Your task to perform on an android device: Add razer blackwidow to the cart on bestbuy.com, then select checkout. Image 0: 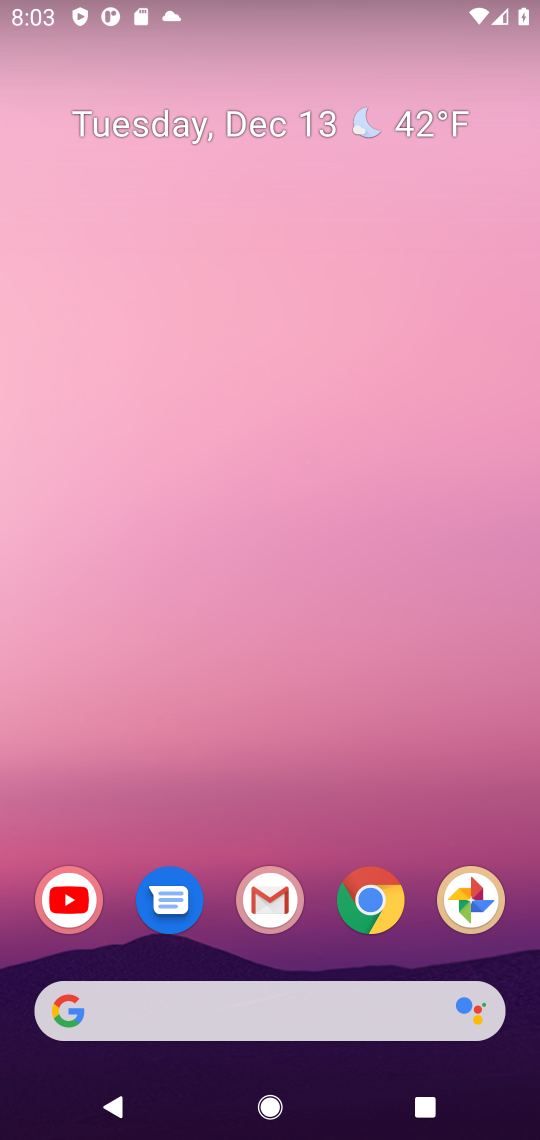
Step 0: click (370, 874)
Your task to perform on an android device: Add razer blackwidow to the cart on bestbuy.com, then select checkout. Image 1: 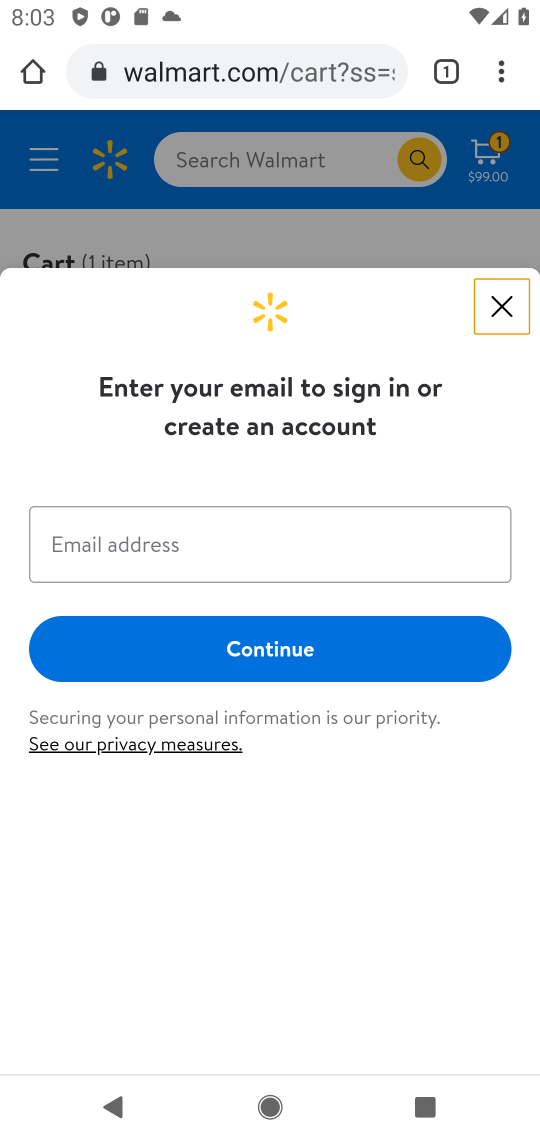
Step 1: click (501, 306)
Your task to perform on an android device: Add razer blackwidow to the cart on bestbuy.com, then select checkout. Image 2: 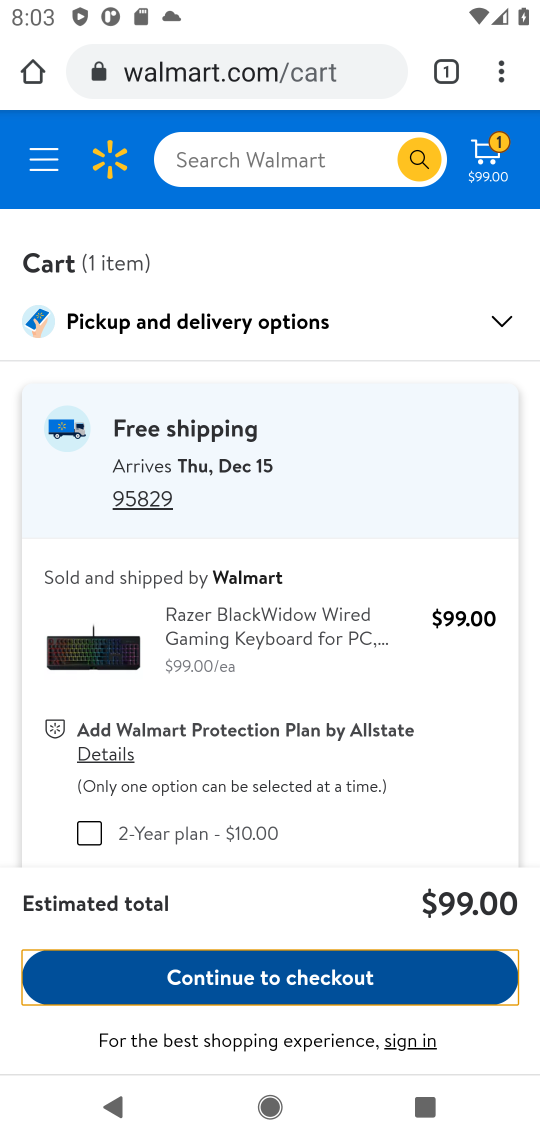
Step 2: click (293, 68)
Your task to perform on an android device: Add razer blackwidow to the cart on bestbuy.com, then select checkout. Image 3: 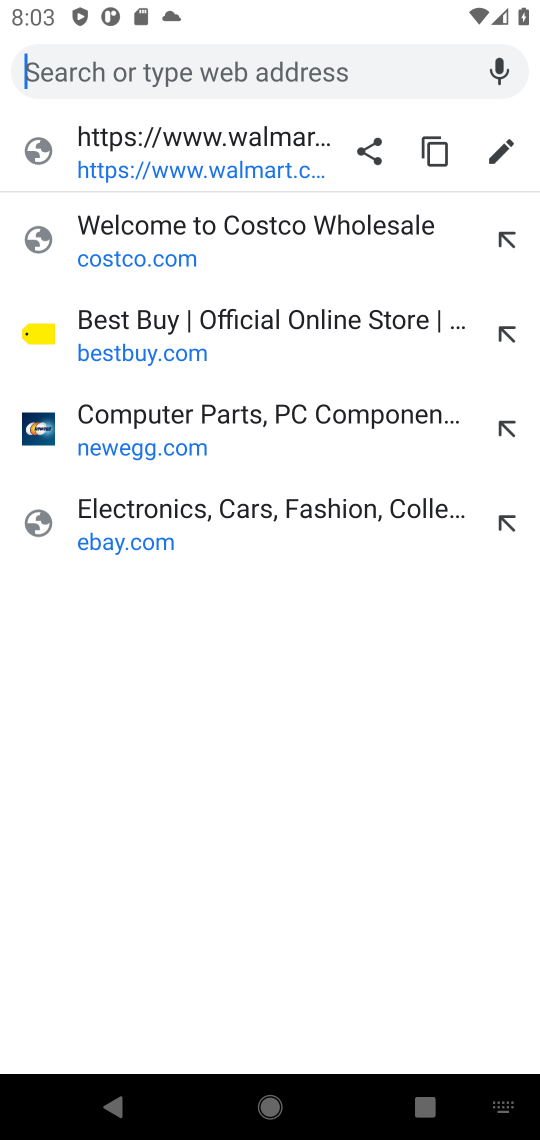
Step 3: type "bestbuy"
Your task to perform on an android device: Add razer blackwidow to the cart on bestbuy.com, then select checkout. Image 4: 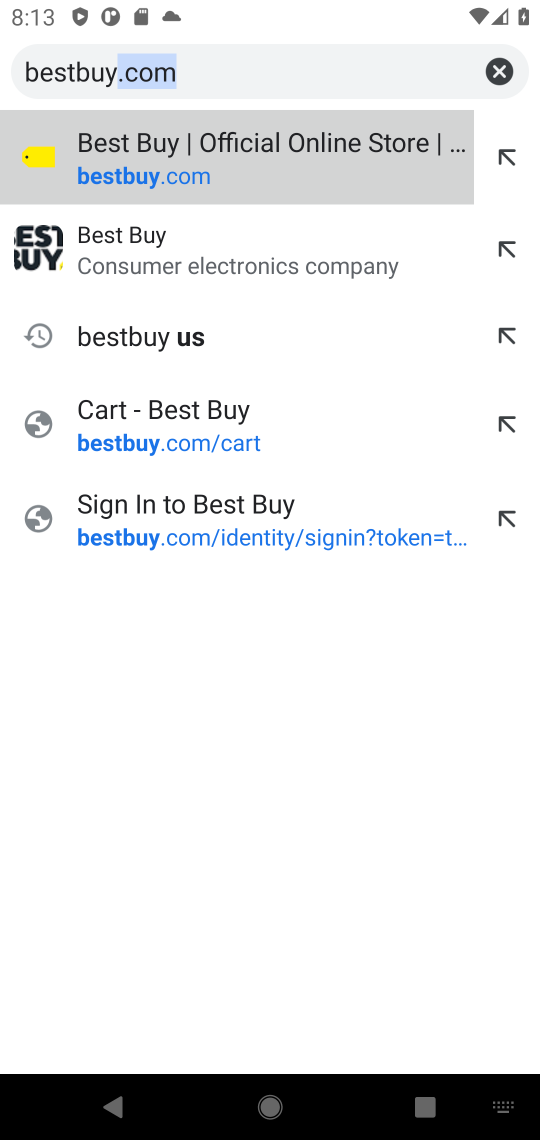
Step 4: click (282, 148)
Your task to perform on an android device: Add razer blackwidow to the cart on bestbuy.com, then select checkout. Image 5: 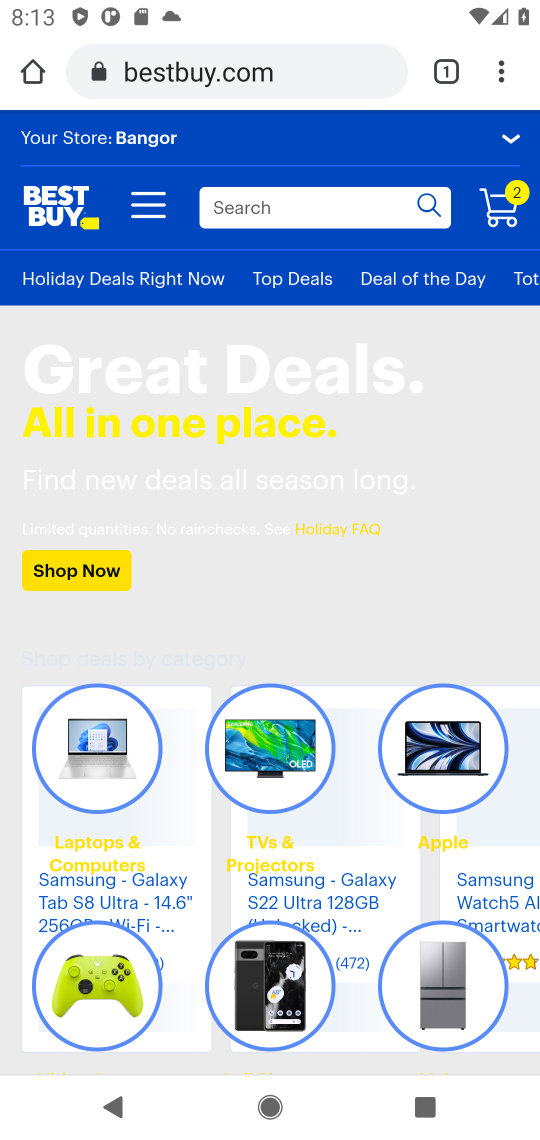
Step 5: task complete